Your task to perform on an android device: Do I have any events tomorrow? Image 0: 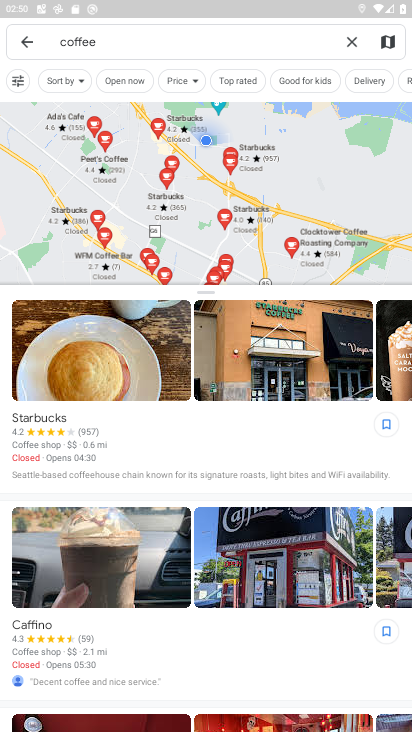
Step 0: press home button
Your task to perform on an android device: Do I have any events tomorrow? Image 1: 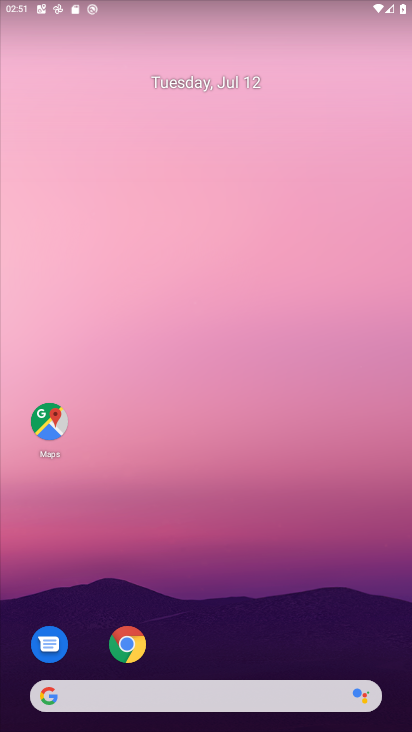
Step 1: drag from (232, 669) to (238, 91)
Your task to perform on an android device: Do I have any events tomorrow? Image 2: 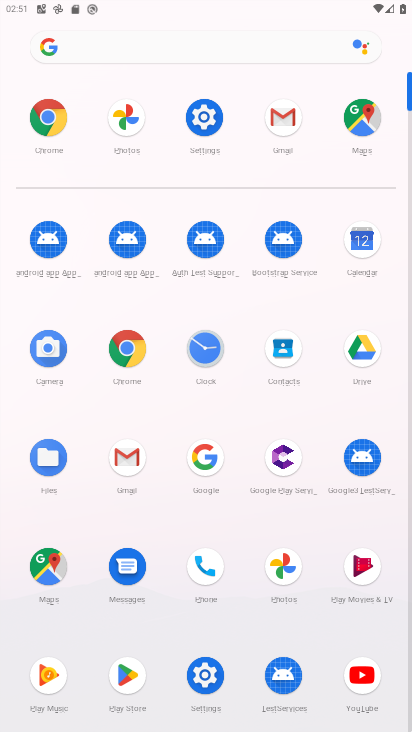
Step 2: click (364, 241)
Your task to perform on an android device: Do I have any events tomorrow? Image 3: 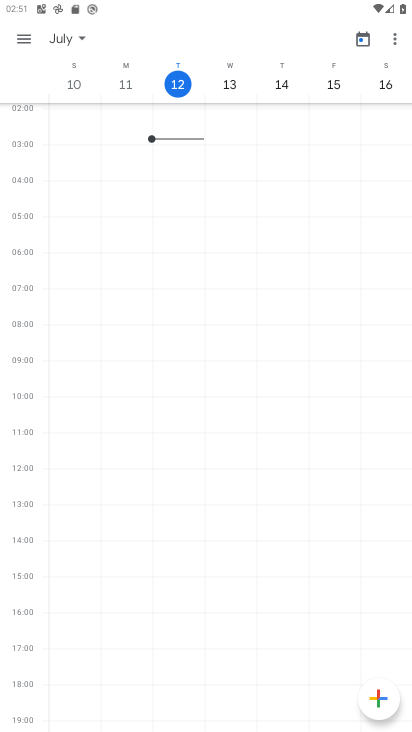
Step 3: click (214, 74)
Your task to perform on an android device: Do I have any events tomorrow? Image 4: 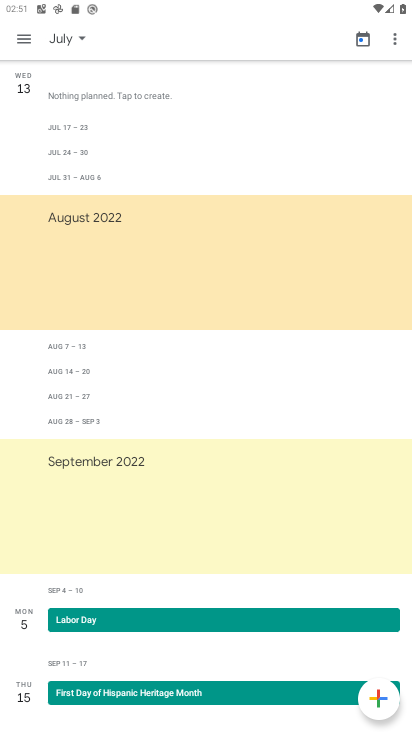
Step 4: task complete